Your task to perform on an android device: change timer sound Image 0: 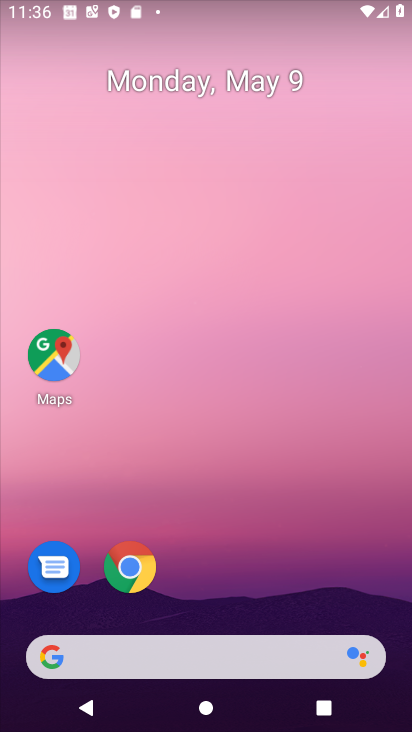
Step 0: drag from (205, 648) to (332, 178)
Your task to perform on an android device: change timer sound Image 1: 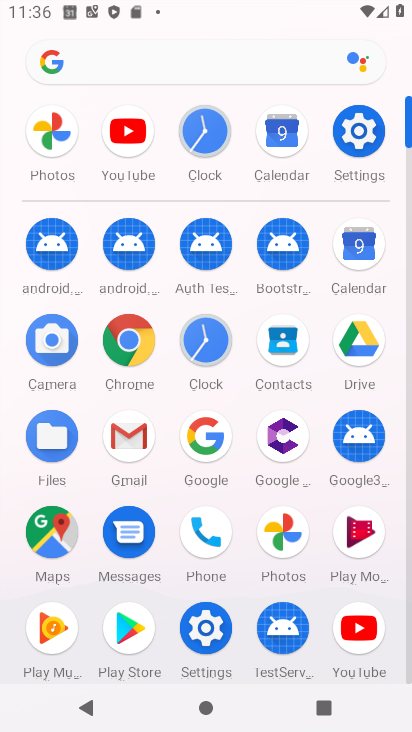
Step 1: click (206, 349)
Your task to perform on an android device: change timer sound Image 2: 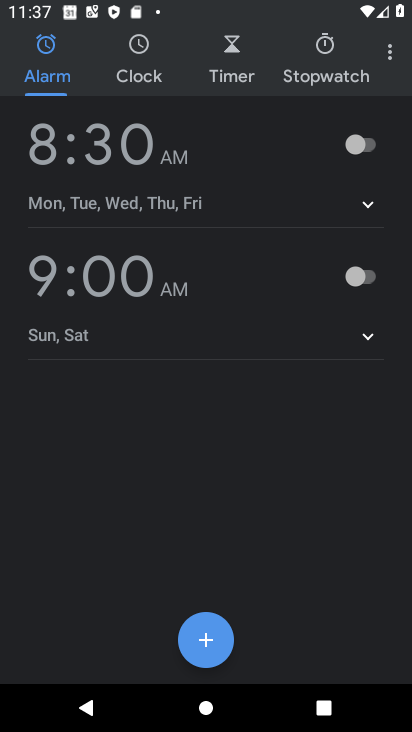
Step 2: click (385, 53)
Your task to perform on an android device: change timer sound Image 3: 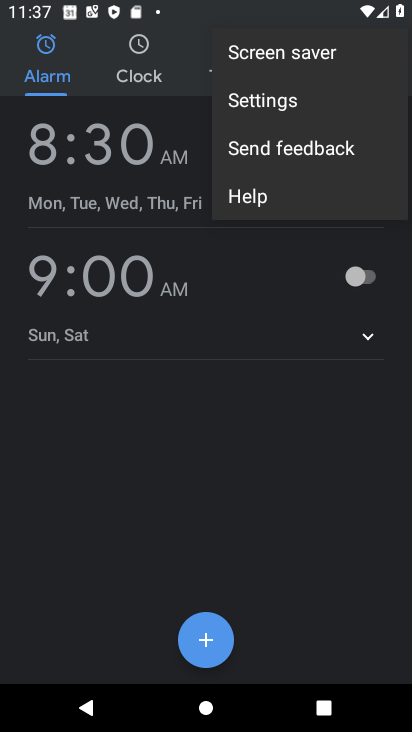
Step 3: click (267, 113)
Your task to perform on an android device: change timer sound Image 4: 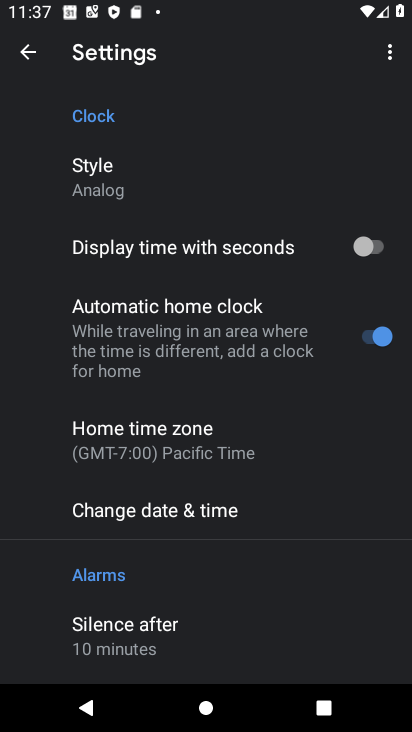
Step 4: drag from (227, 542) to (245, 234)
Your task to perform on an android device: change timer sound Image 5: 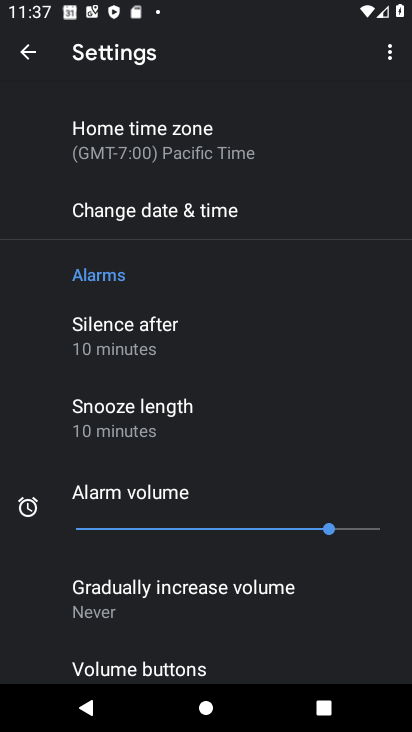
Step 5: drag from (214, 568) to (216, 242)
Your task to perform on an android device: change timer sound Image 6: 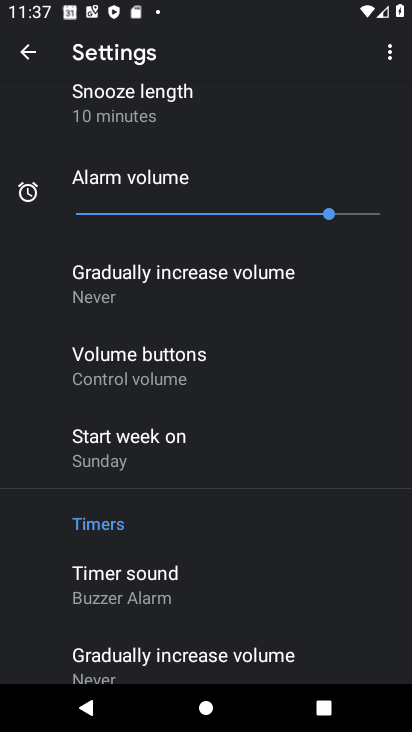
Step 6: click (184, 586)
Your task to perform on an android device: change timer sound Image 7: 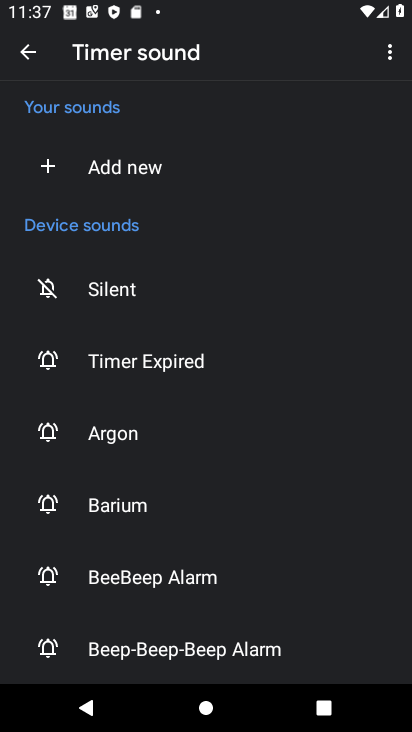
Step 7: click (225, 643)
Your task to perform on an android device: change timer sound Image 8: 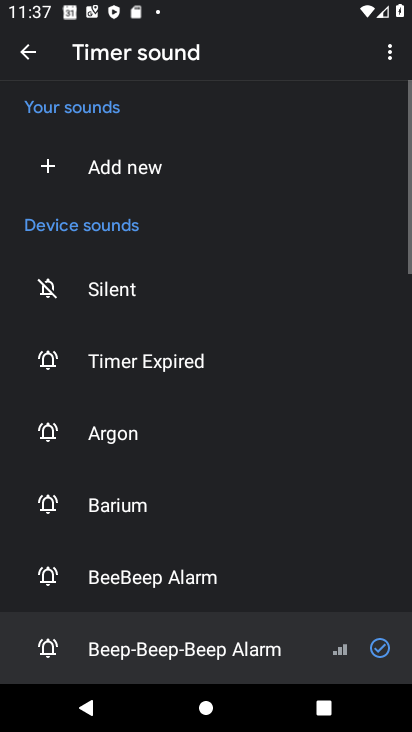
Step 8: task complete